Your task to perform on an android device: Open Youtube and go to the subscriptions tab Image 0: 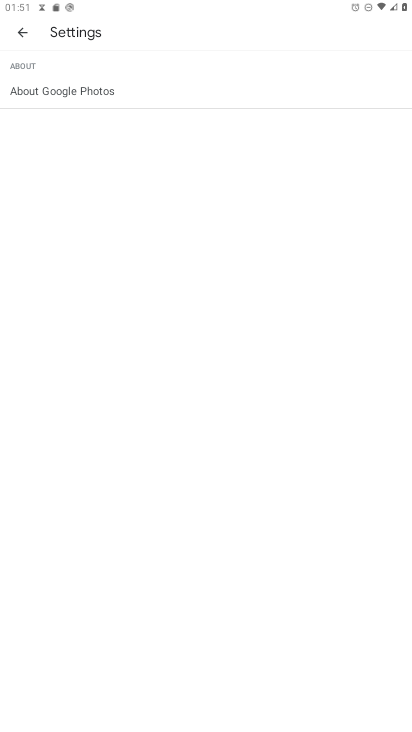
Step 0: press home button
Your task to perform on an android device: Open Youtube and go to the subscriptions tab Image 1: 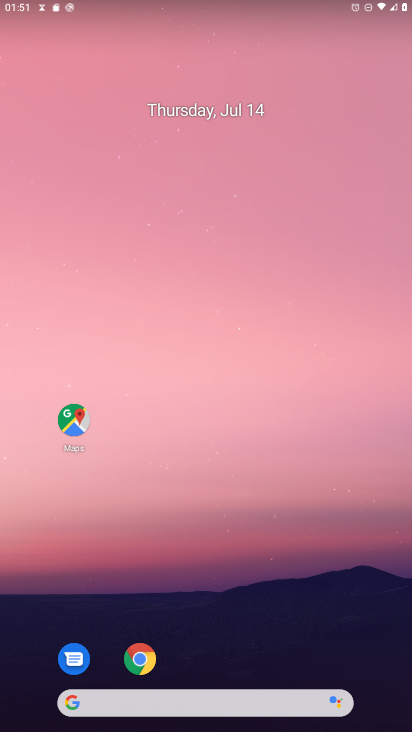
Step 1: drag from (106, 510) to (245, 0)
Your task to perform on an android device: Open Youtube and go to the subscriptions tab Image 2: 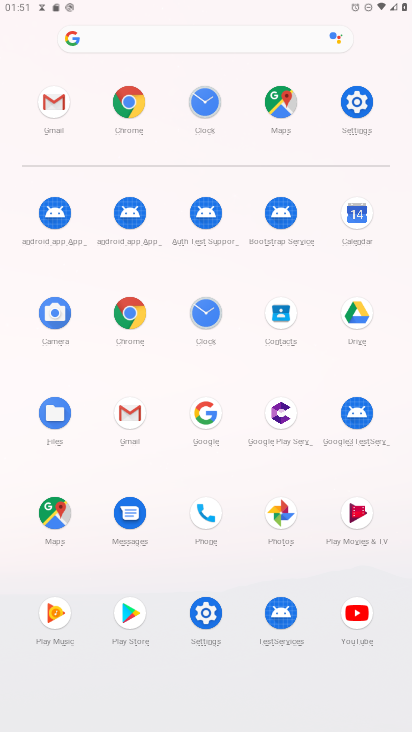
Step 2: click (356, 626)
Your task to perform on an android device: Open Youtube and go to the subscriptions tab Image 3: 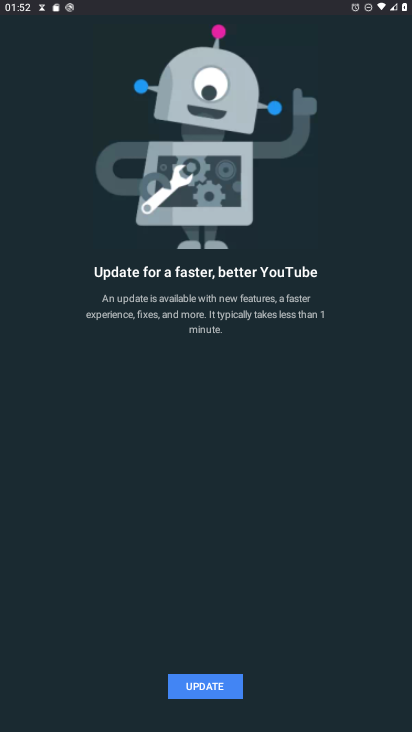
Step 3: click (195, 682)
Your task to perform on an android device: Open Youtube and go to the subscriptions tab Image 4: 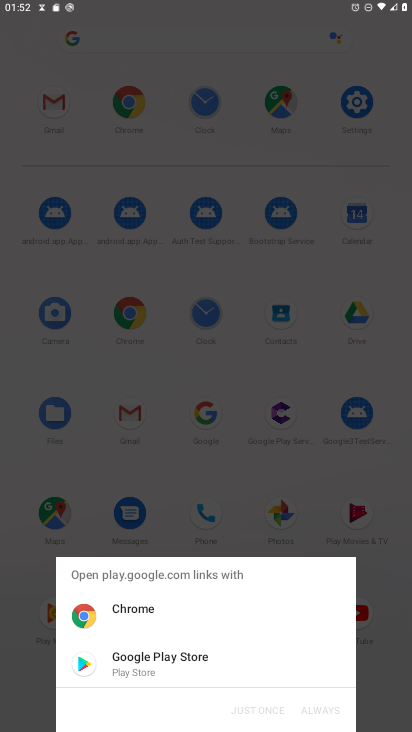
Step 4: click (125, 659)
Your task to perform on an android device: Open Youtube and go to the subscriptions tab Image 5: 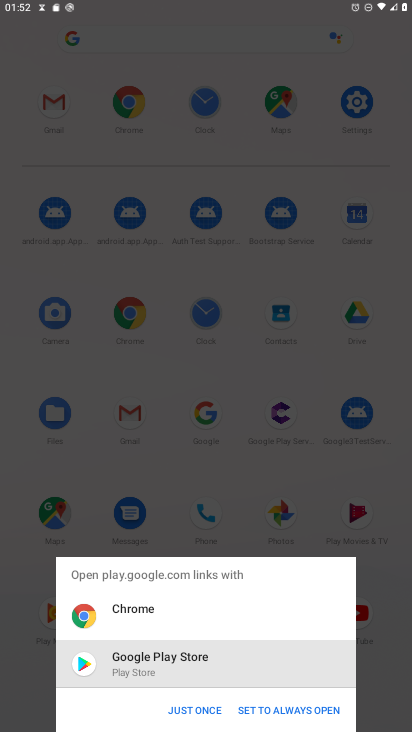
Step 5: click (197, 716)
Your task to perform on an android device: Open Youtube and go to the subscriptions tab Image 6: 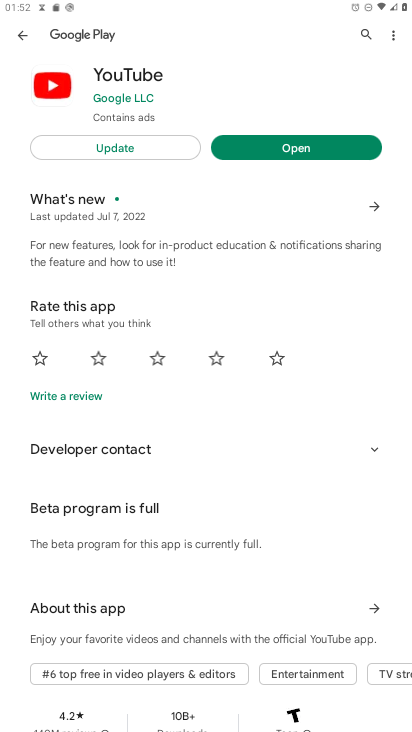
Step 6: click (295, 144)
Your task to perform on an android device: Open Youtube and go to the subscriptions tab Image 7: 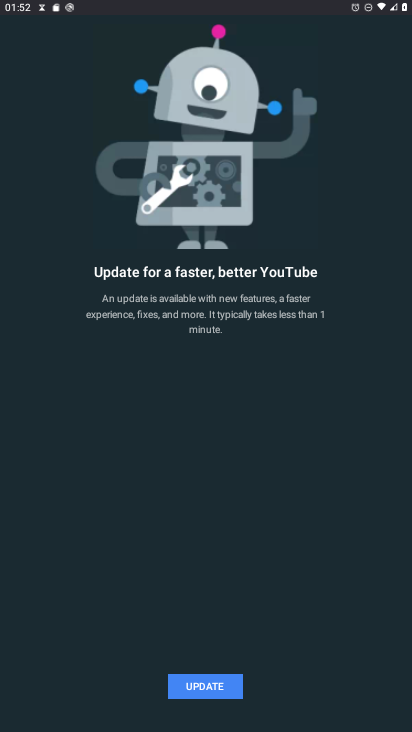
Step 7: task complete